Your task to perform on an android device: open app "LiveIn - Share Your Moment" (install if not already installed), go to login, and select forgot password Image 0: 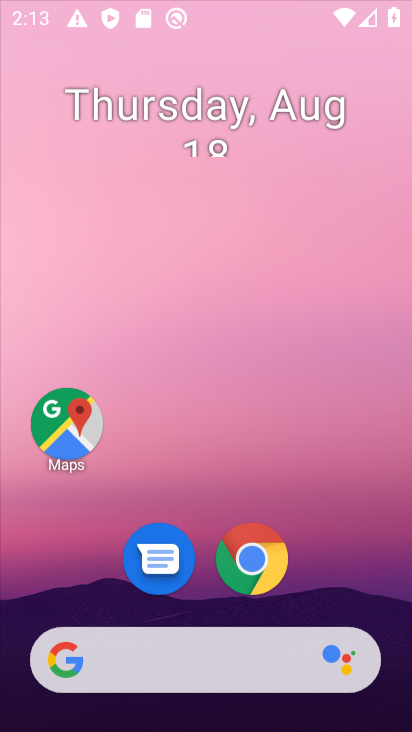
Step 0: click (192, 14)
Your task to perform on an android device: open app "LiveIn - Share Your Moment" (install if not already installed), go to login, and select forgot password Image 1: 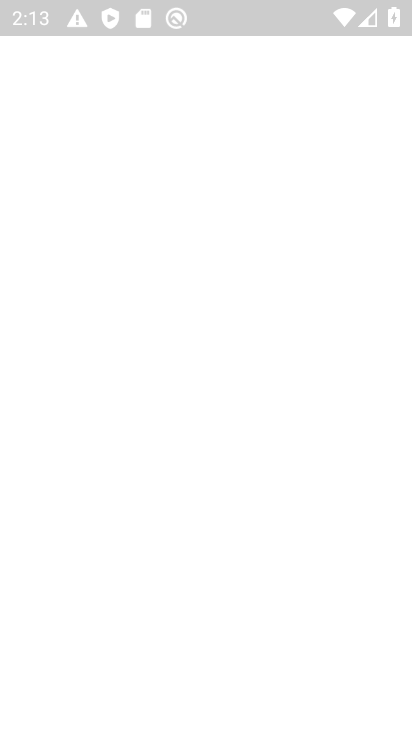
Step 1: press home button
Your task to perform on an android device: open app "LiveIn - Share Your Moment" (install if not already installed), go to login, and select forgot password Image 2: 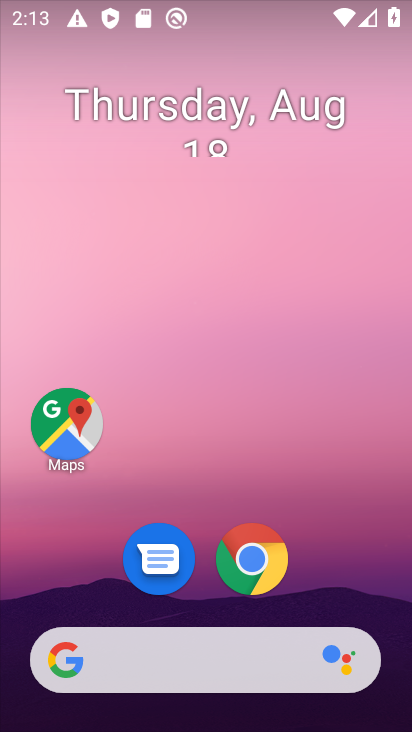
Step 2: drag from (231, 621) to (191, 9)
Your task to perform on an android device: open app "LiveIn - Share Your Moment" (install if not already installed), go to login, and select forgot password Image 3: 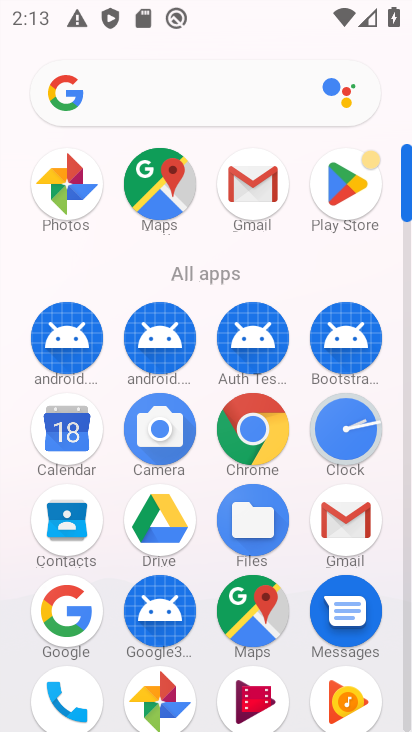
Step 3: click (331, 195)
Your task to perform on an android device: open app "LiveIn - Share Your Moment" (install if not already installed), go to login, and select forgot password Image 4: 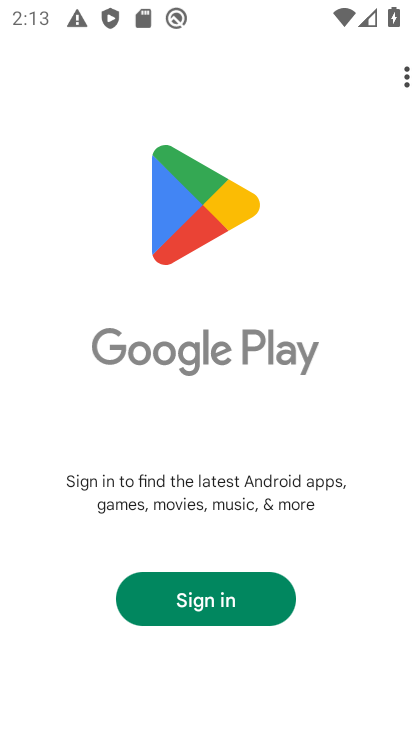
Step 4: click (193, 612)
Your task to perform on an android device: open app "LiveIn - Share Your Moment" (install if not already installed), go to login, and select forgot password Image 5: 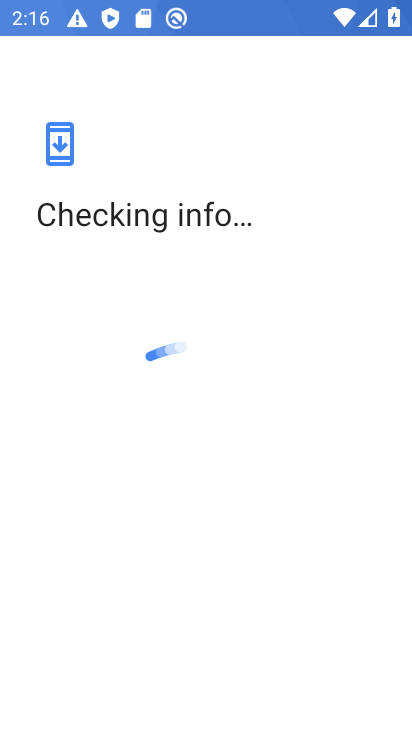
Step 5: task complete